Your task to perform on an android device: Go to Reddit.com Image 0: 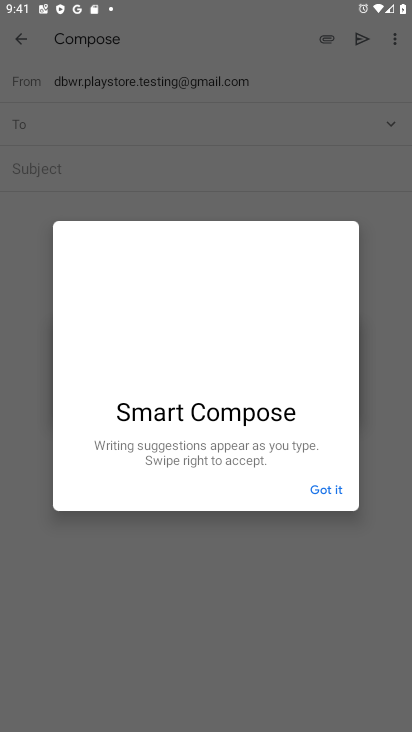
Step 0: press home button
Your task to perform on an android device: Go to Reddit.com Image 1: 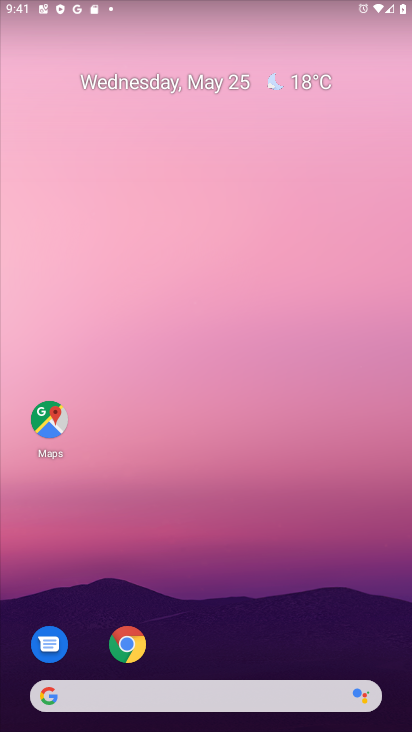
Step 1: click (123, 639)
Your task to perform on an android device: Go to Reddit.com Image 2: 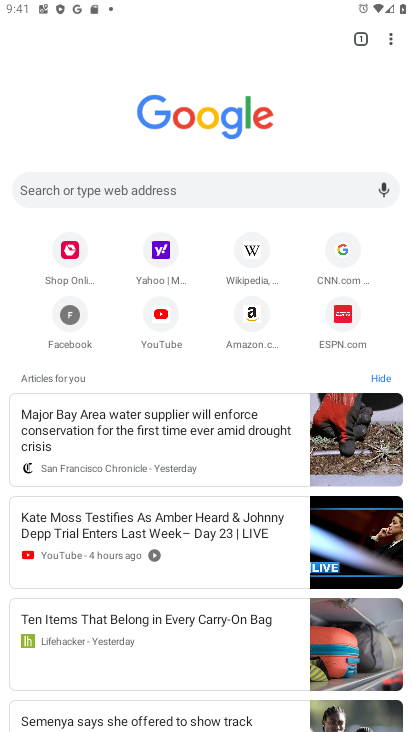
Step 2: click (79, 184)
Your task to perform on an android device: Go to Reddit.com Image 3: 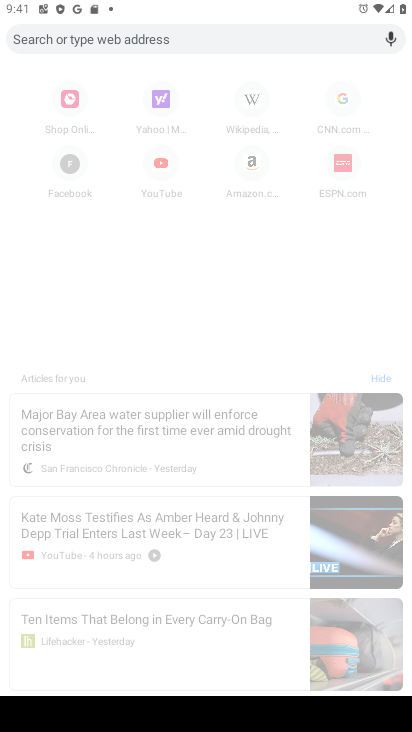
Step 3: type "reddit"
Your task to perform on an android device: Go to Reddit.com Image 4: 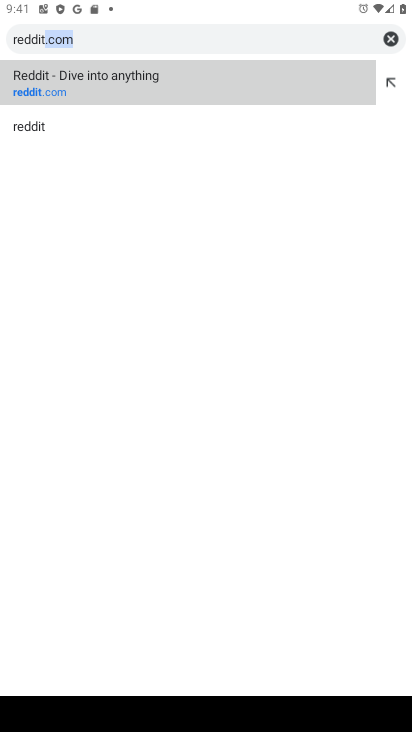
Step 4: click (77, 87)
Your task to perform on an android device: Go to Reddit.com Image 5: 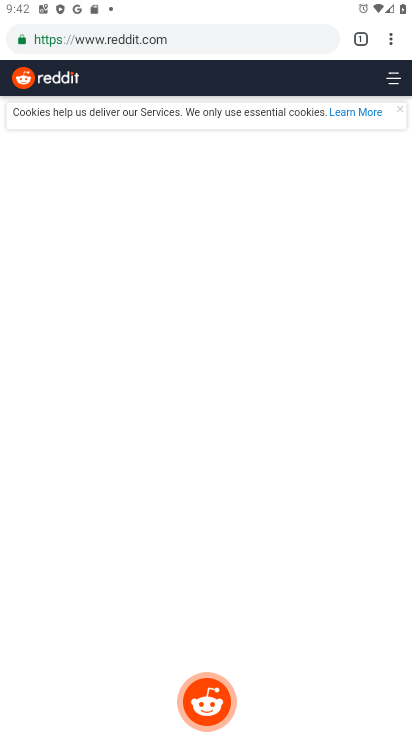
Step 5: task complete